Your task to perform on an android device: toggle sleep mode Image 0: 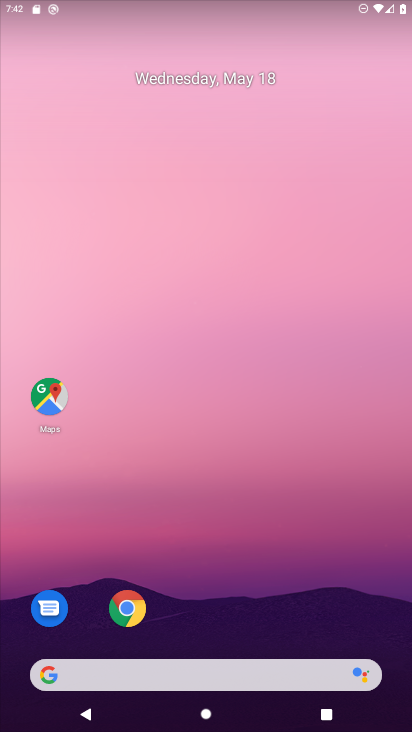
Step 0: drag from (266, 588) to (262, 61)
Your task to perform on an android device: toggle sleep mode Image 1: 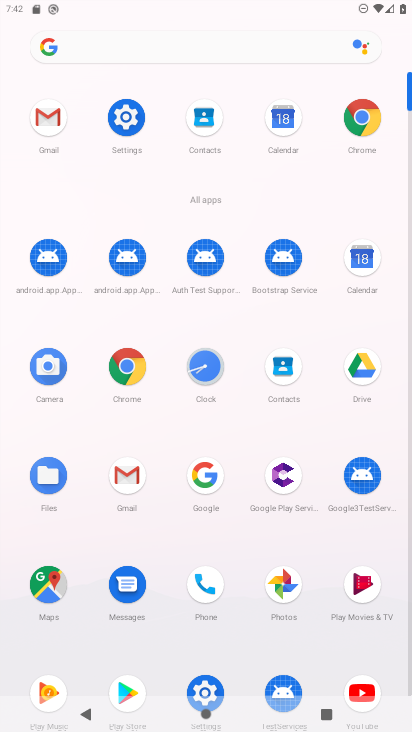
Step 1: drag from (246, 351) to (236, 228)
Your task to perform on an android device: toggle sleep mode Image 2: 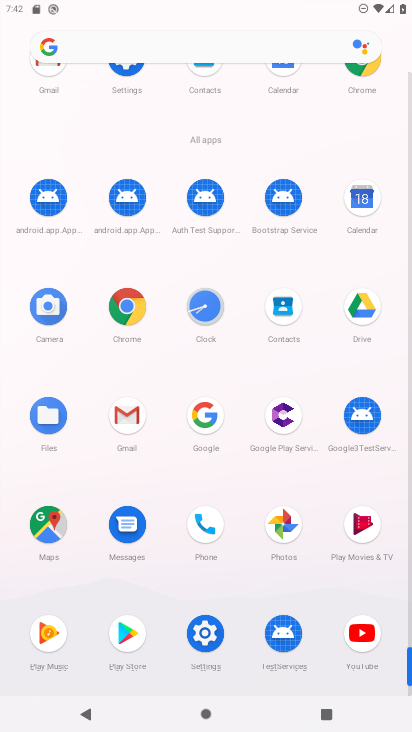
Step 2: click (214, 623)
Your task to perform on an android device: toggle sleep mode Image 3: 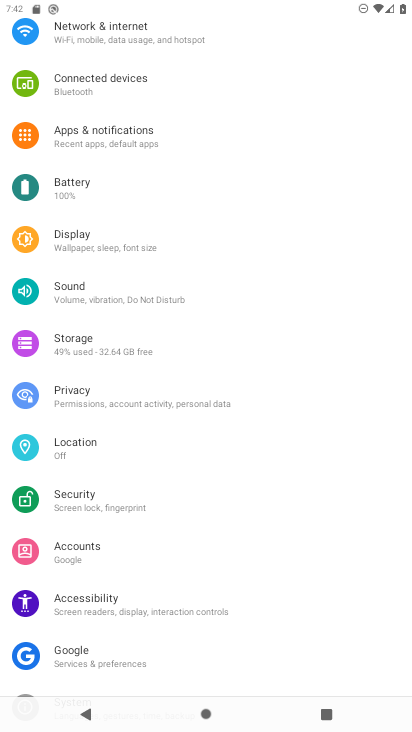
Step 3: click (102, 237)
Your task to perform on an android device: toggle sleep mode Image 4: 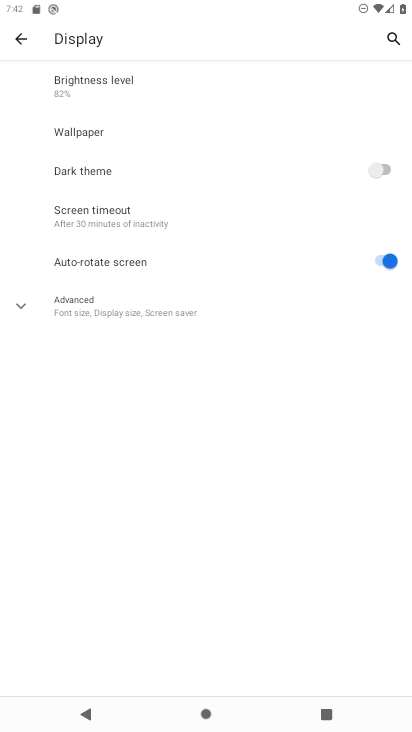
Step 4: task complete